Your task to perform on an android device: Turn on the flashlight Image 0: 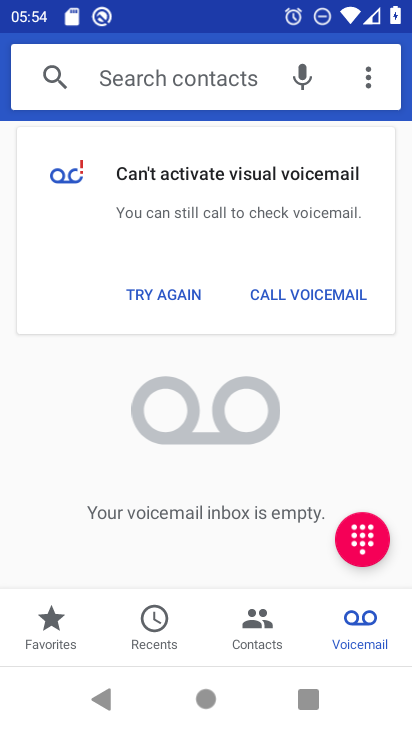
Step 0: press home button
Your task to perform on an android device: Turn on the flashlight Image 1: 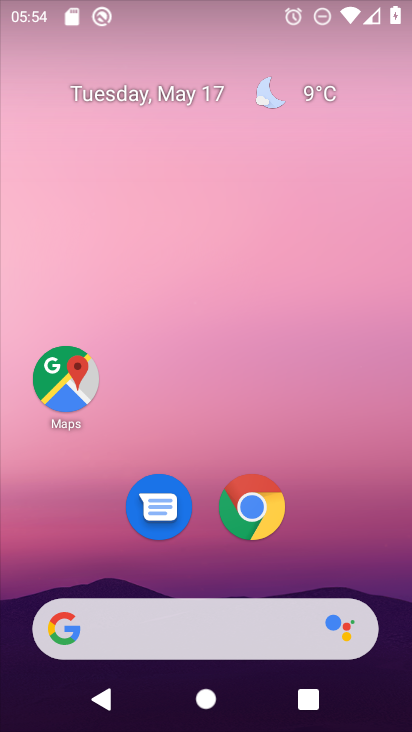
Step 1: task complete